Your task to perform on an android device: Check the weather Image 0: 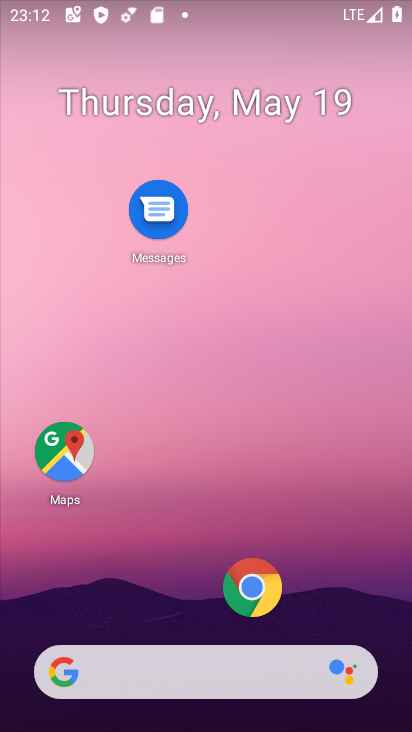
Step 0: click (136, 674)
Your task to perform on an android device: Check the weather Image 1: 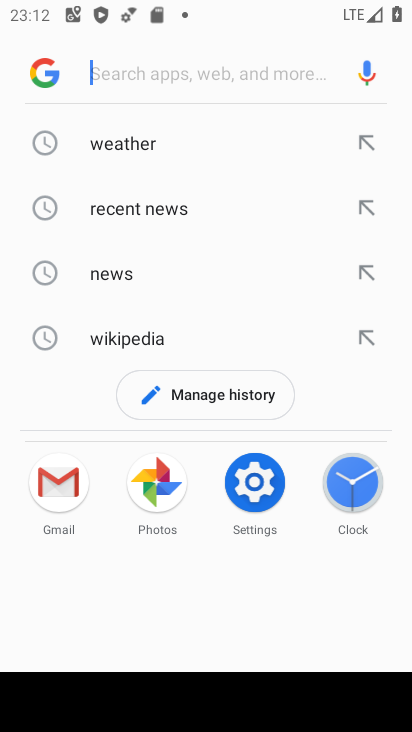
Step 1: click (186, 153)
Your task to perform on an android device: Check the weather Image 2: 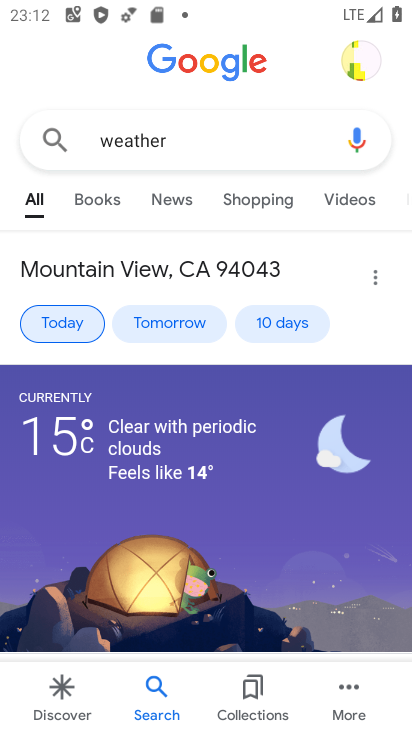
Step 2: task complete